Your task to perform on an android device: Go to network settings Image 0: 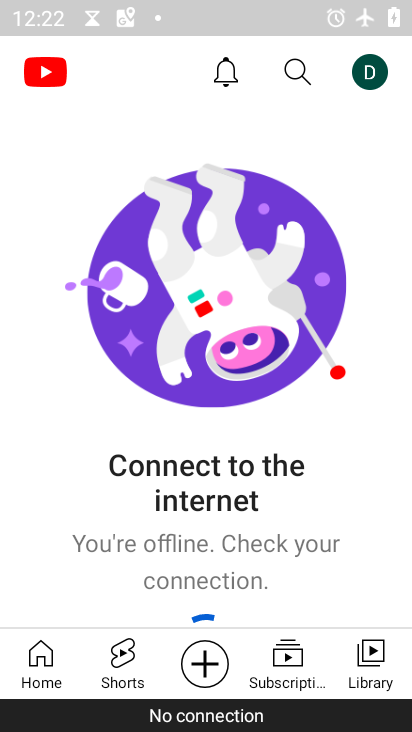
Step 0: press home button
Your task to perform on an android device: Go to network settings Image 1: 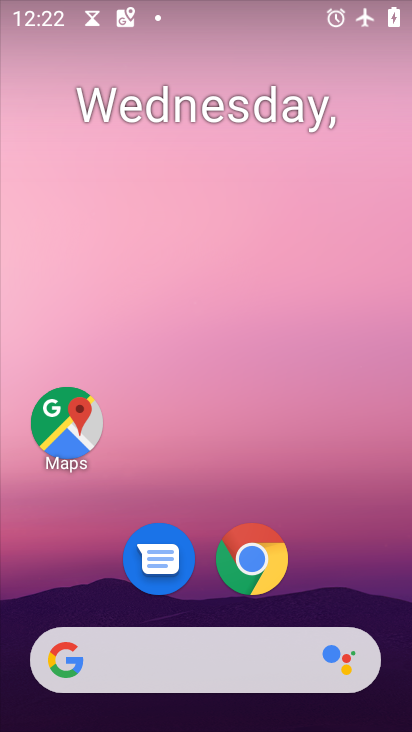
Step 1: drag from (333, 528) to (299, 87)
Your task to perform on an android device: Go to network settings Image 2: 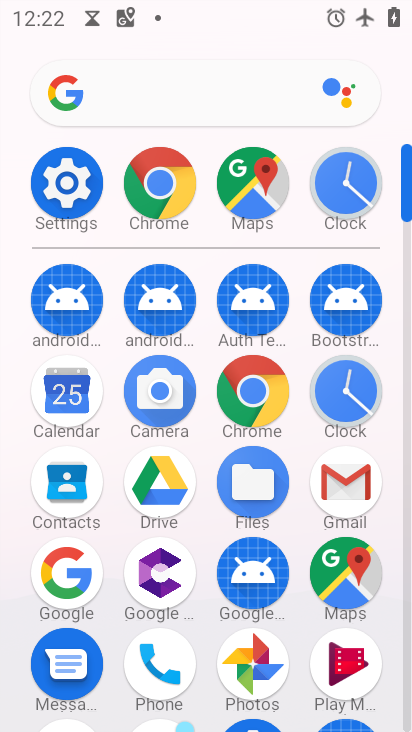
Step 2: click (73, 191)
Your task to perform on an android device: Go to network settings Image 3: 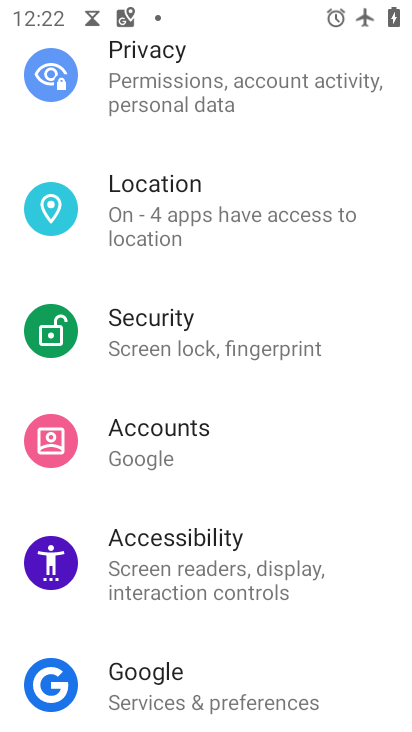
Step 3: drag from (208, 159) to (204, 632)
Your task to perform on an android device: Go to network settings Image 4: 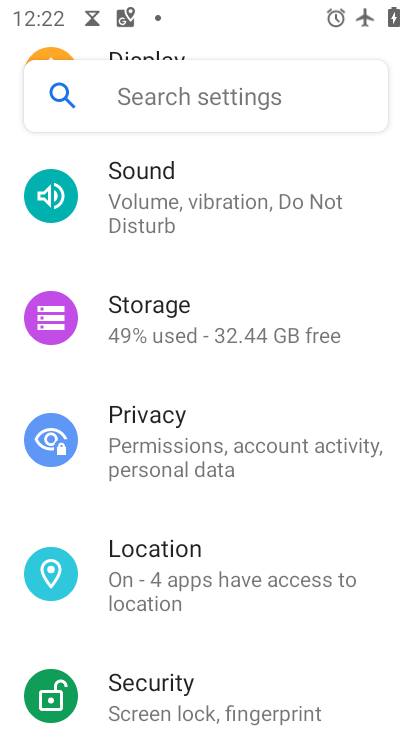
Step 4: drag from (228, 191) to (201, 644)
Your task to perform on an android device: Go to network settings Image 5: 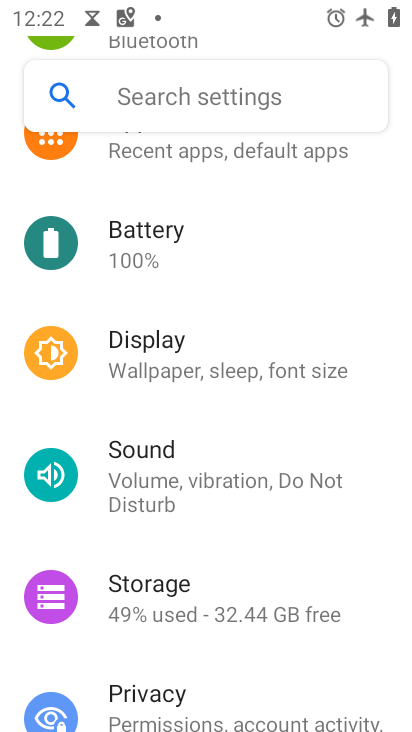
Step 5: drag from (249, 217) to (252, 702)
Your task to perform on an android device: Go to network settings Image 6: 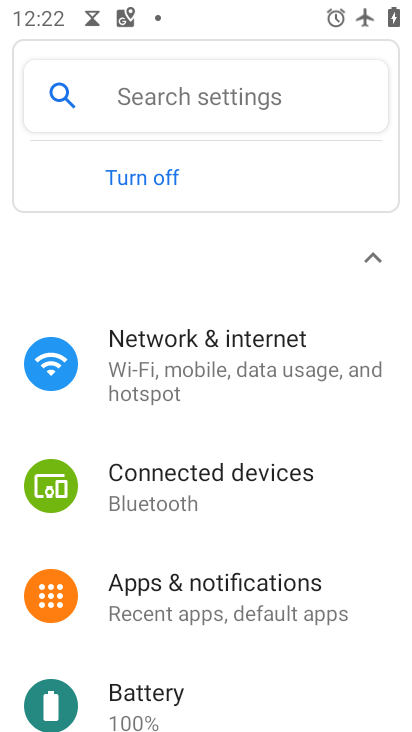
Step 6: click (285, 369)
Your task to perform on an android device: Go to network settings Image 7: 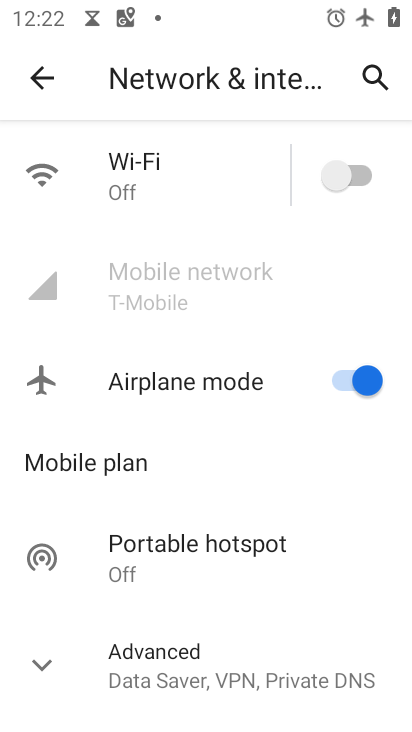
Step 7: task complete